Your task to perform on an android device: find photos in the google photos app Image 0: 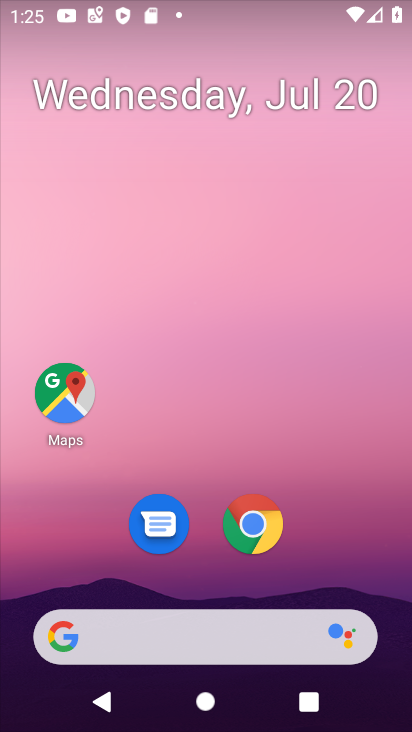
Step 0: drag from (323, 540) to (327, 53)
Your task to perform on an android device: find photos in the google photos app Image 1: 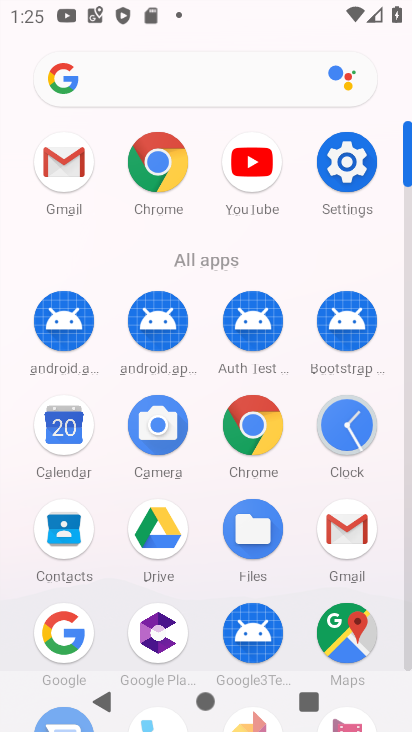
Step 1: drag from (304, 492) to (340, 231)
Your task to perform on an android device: find photos in the google photos app Image 2: 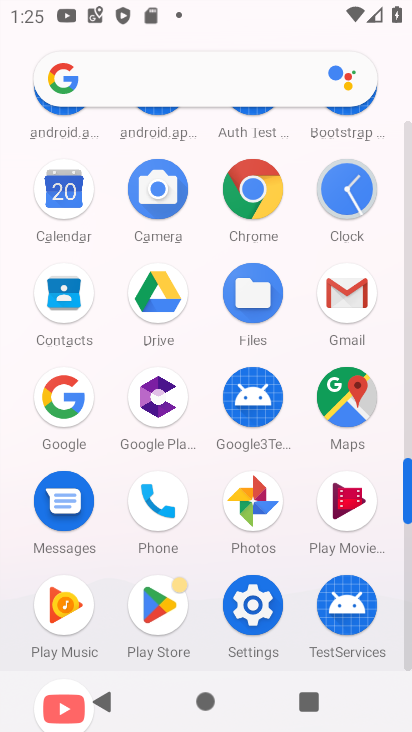
Step 2: click (266, 507)
Your task to perform on an android device: find photos in the google photos app Image 3: 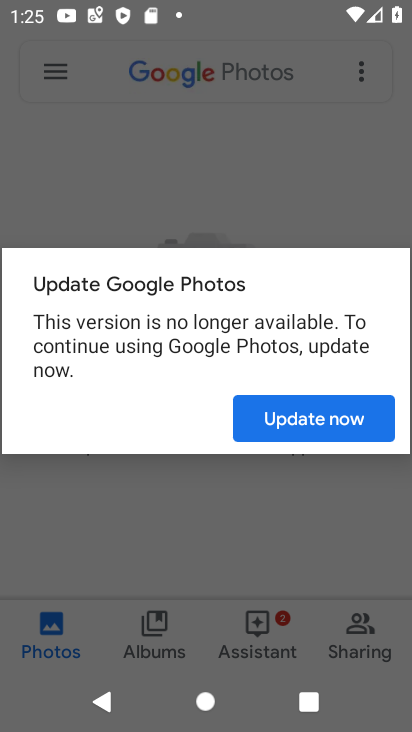
Step 3: click (325, 426)
Your task to perform on an android device: find photos in the google photos app Image 4: 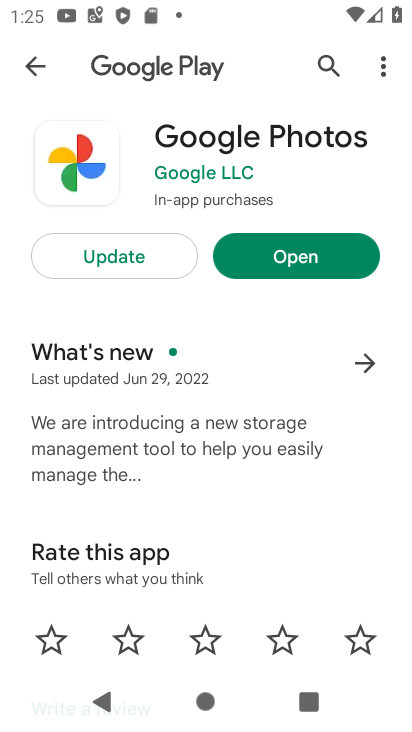
Step 4: click (349, 253)
Your task to perform on an android device: find photos in the google photos app Image 5: 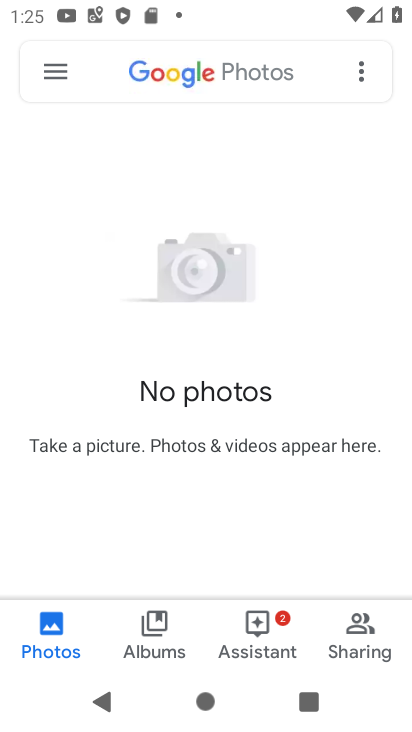
Step 5: task complete